Your task to perform on an android device: What is the news today? Image 0: 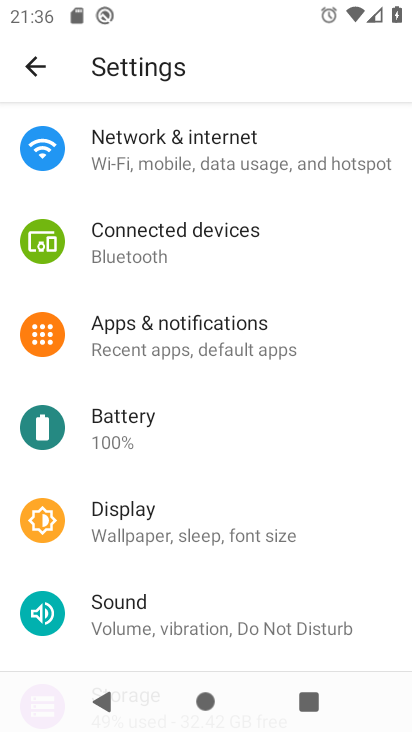
Step 0: press home button
Your task to perform on an android device: What is the news today? Image 1: 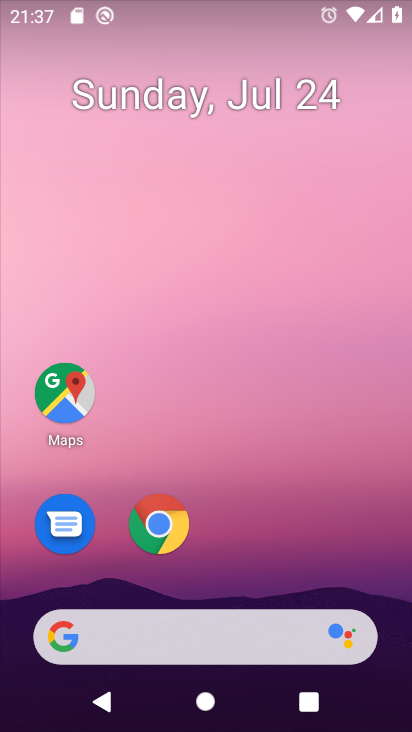
Step 1: click (184, 639)
Your task to perform on an android device: What is the news today? Image 2: 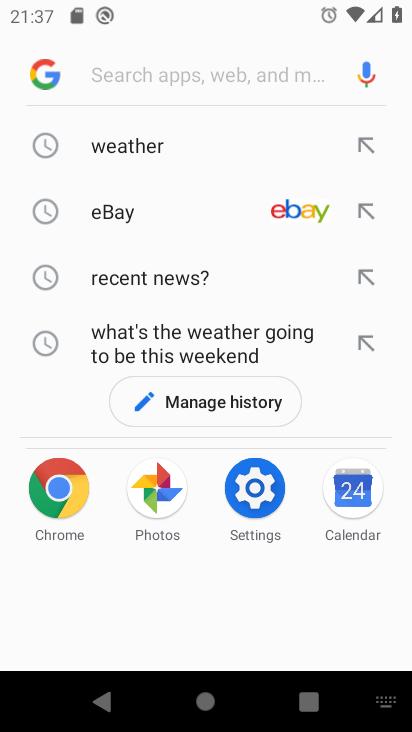
Step 2: click (188, 273)
Your task to perform on an android device: What is the news today? Image 3: 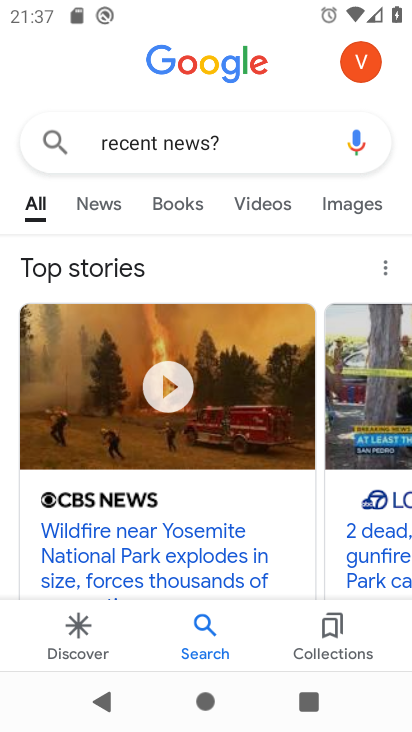
Step 3: task complete